Your task to perform on an android device: snooze an email in the gmail app Image 0: 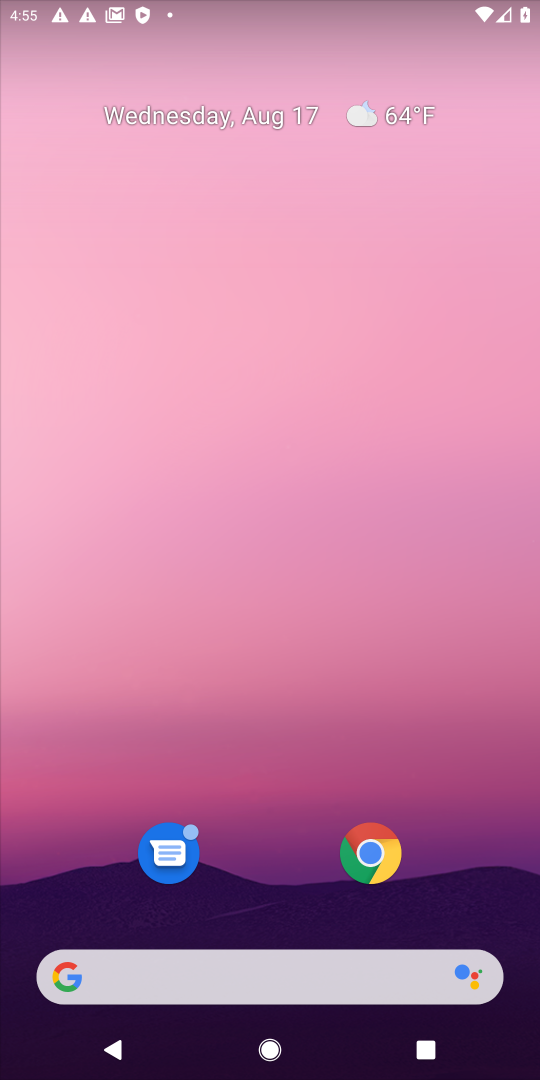
Step 0: drag from (486, 708) to (375, 83)
Your task to perform on an android device: snooze an email in the gmail app Image 1: 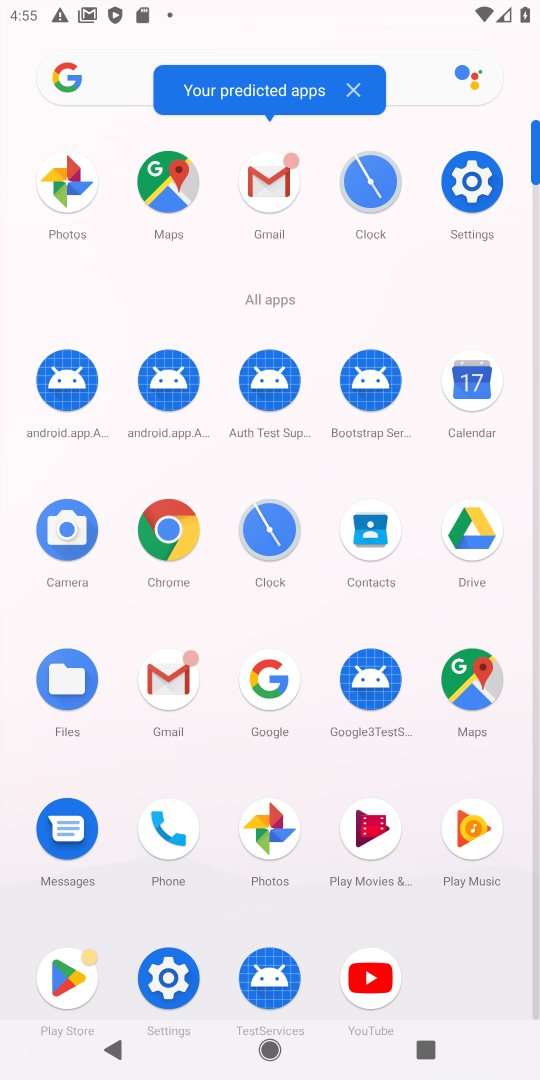
Step 1: click (287, 171)
Your task to perform on an android device: snooze an email in the gmail app Image 2: 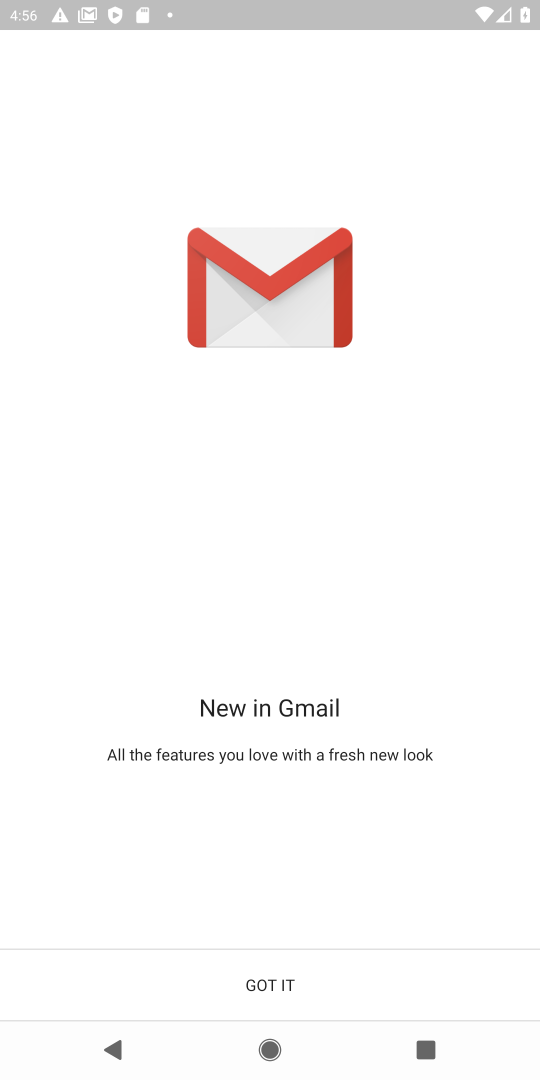
Step 2: click (378, 992)
Your task to perform on an android device: snooze an email in the gmail app Image 3: 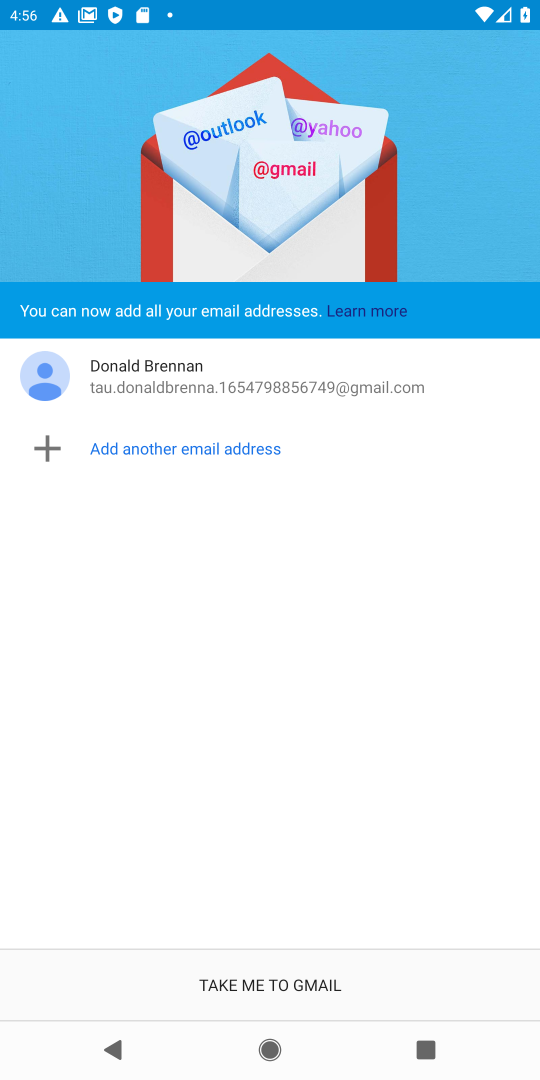
Step 3: click (255, 962)
Your task to perform on an android device: snooze an email in the gmail app Image 4: 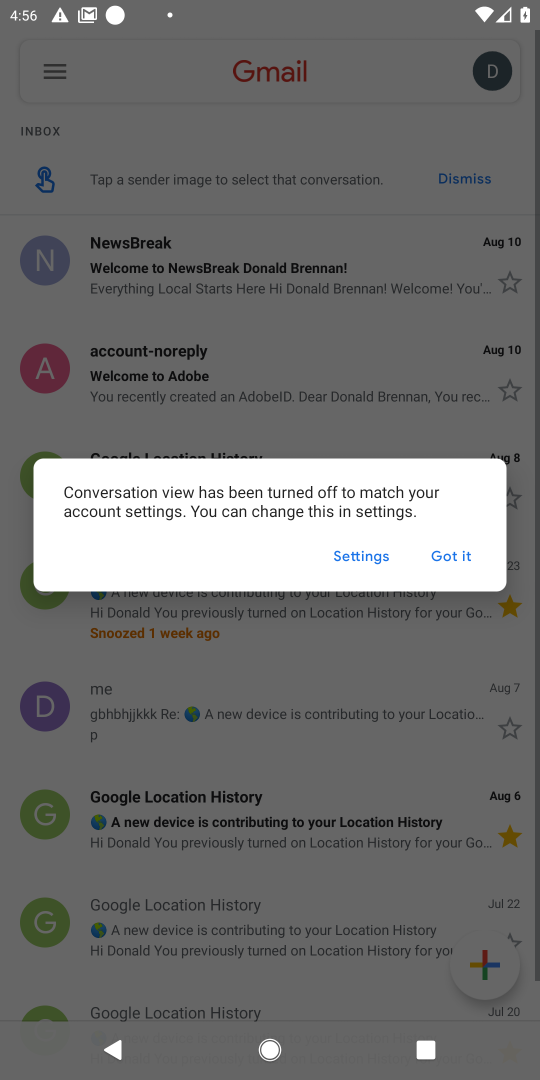
Step 4: click (465, 548)
Your task to perform on an android device: snooze an email in the gmail app Image 5: 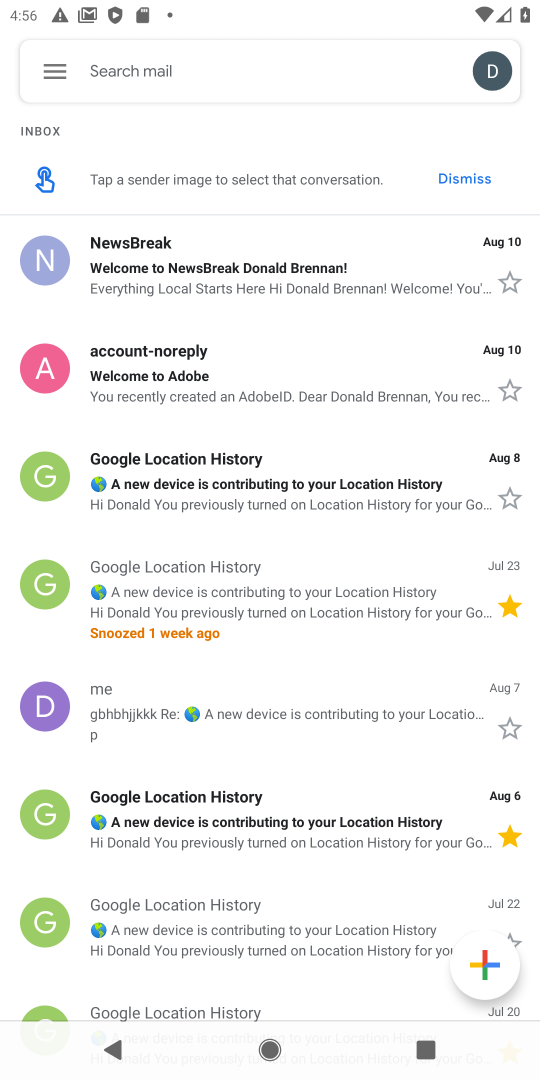
Step 5: click (234, 263)
Your task to perform on an android device: snooze an email in the gmail app Image 6: 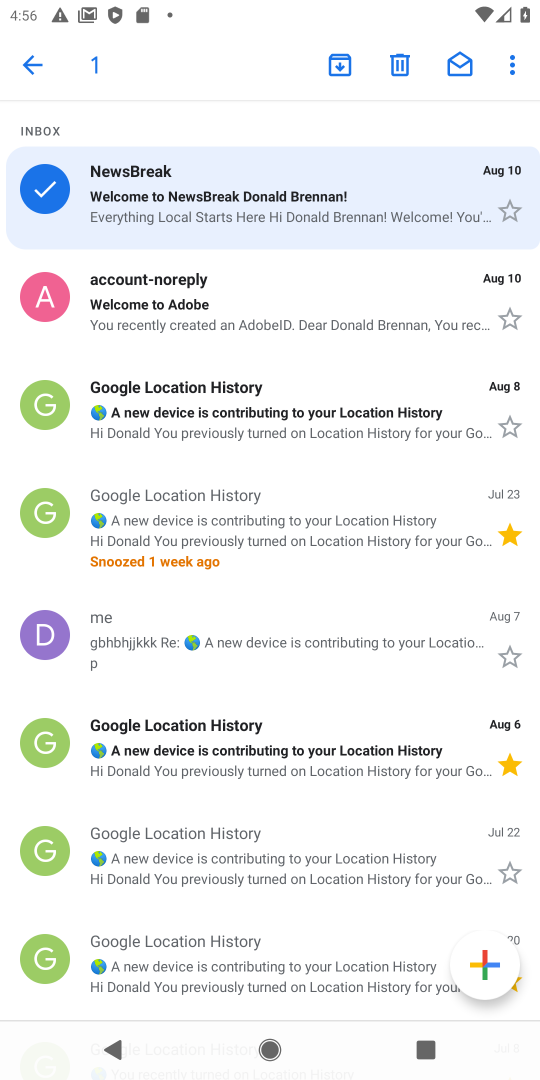
Step 6: click (505, 66)
Your task to perform on an android device: snooze an email in the gmail app Image 7: 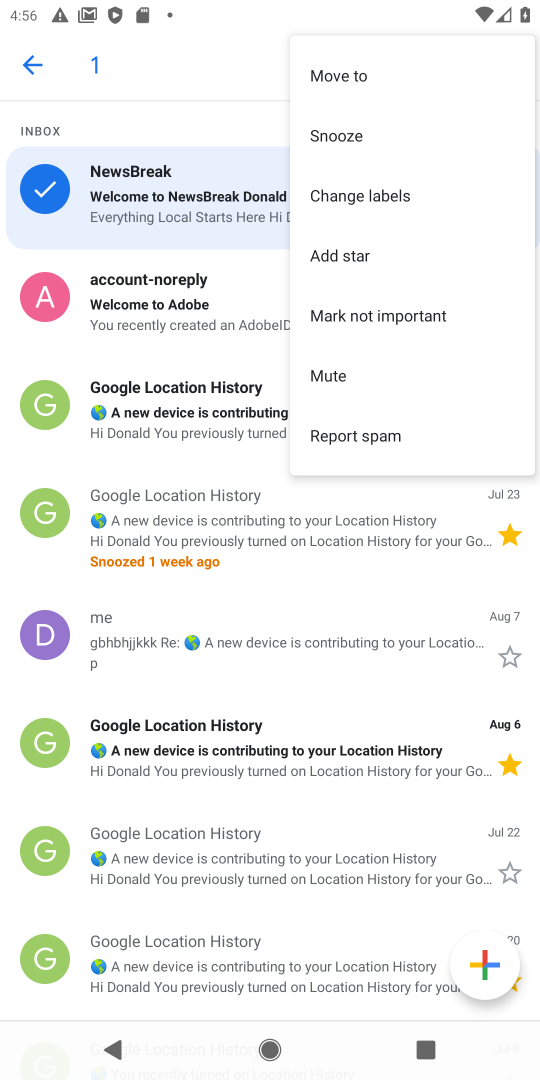
Step 7: click (352, 134)
Your task to perform on an android device: snooze an email in the gmail app Image 8: 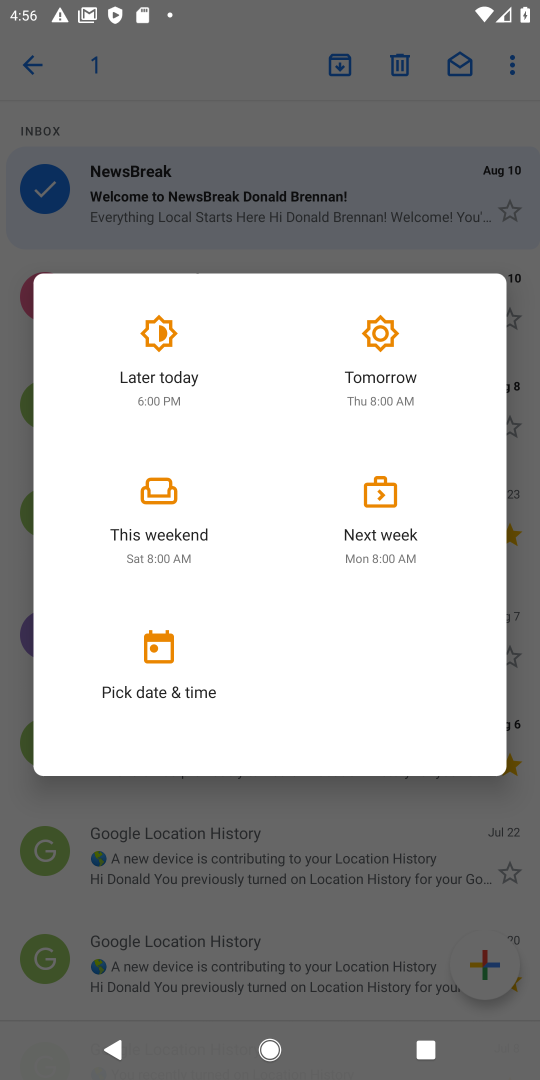
Step 8: click (361, 540)
Your task to perform on an android device: snooze an email in the gmail app Image 9: 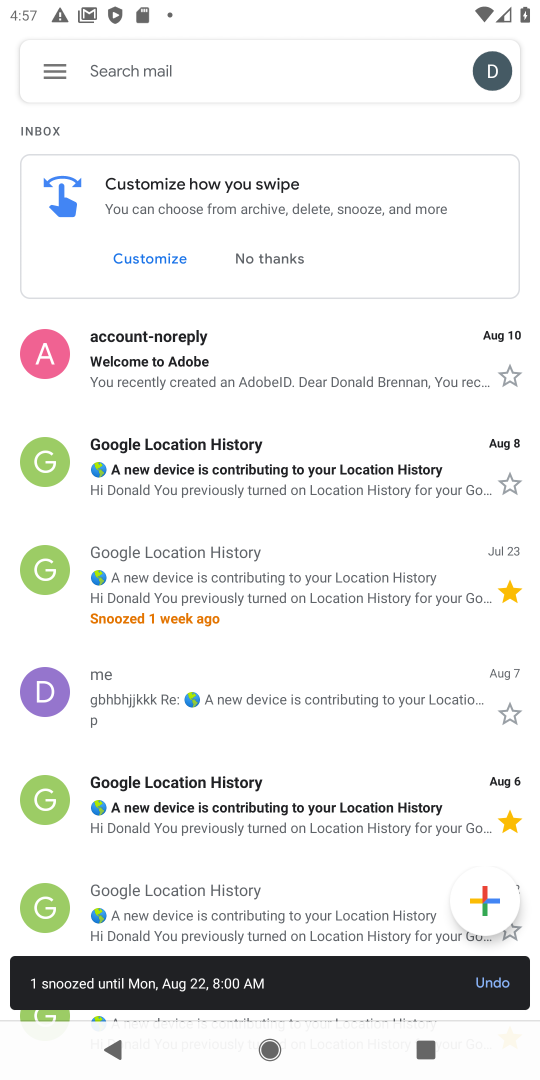
Step 9: task complete